Your task to perform on an android device: move a message to another label in the gmail app Image 0: 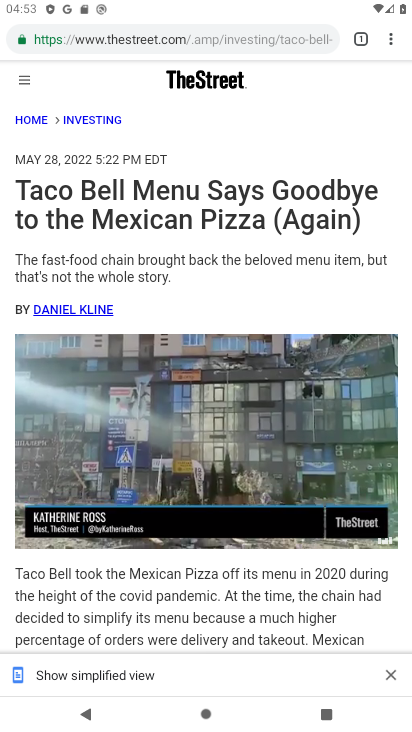
Step 0: press home button
Your task to perform on an android device: move a message to another label in the gmail app Image 1: 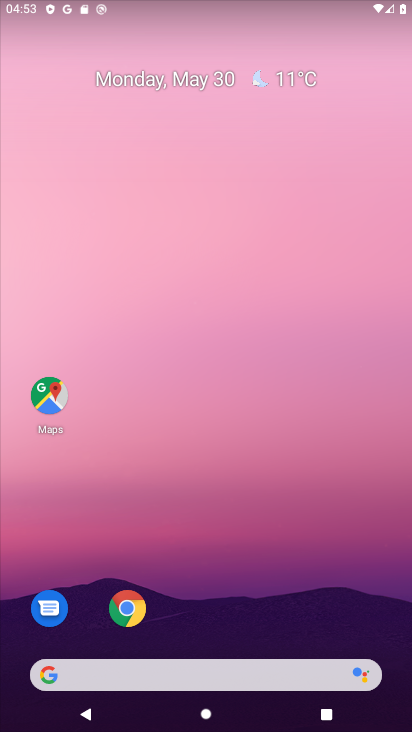
Step 1: press home button
Your task to perform on an android device: move a message to another label in the gmail app Image 2: 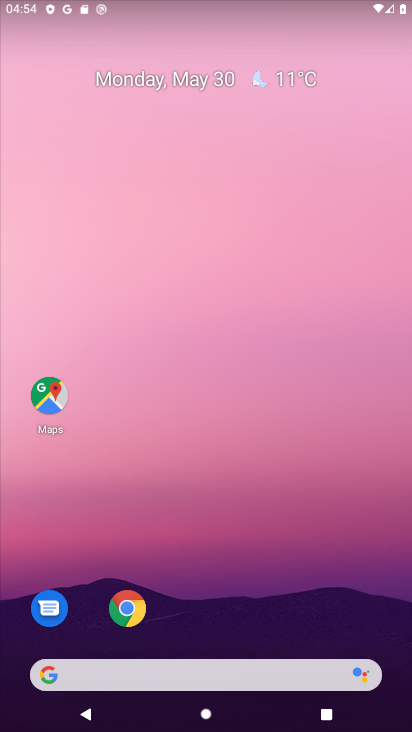
Step 2: drag from (217, 643) to (210, 370)
Your task to perform on an android device: move a message to another label in the gmail app Image 3: 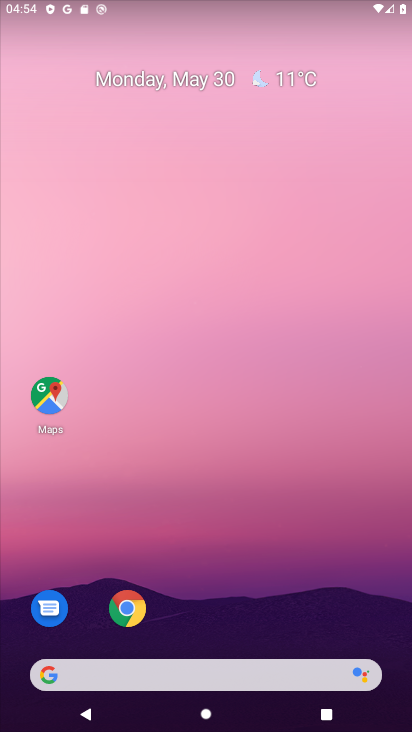
Step 3: drag from (200, 634) to (227, 147)
Your task to perform on an android device: move a message to another label in the gmail app Image 4: 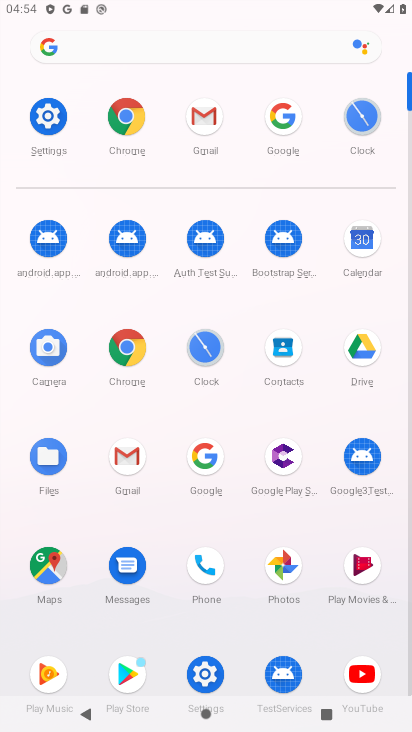
Step 4: click (143, 461)
Your task to perform on an android device: move a message to another label in the gmail app Image 5: 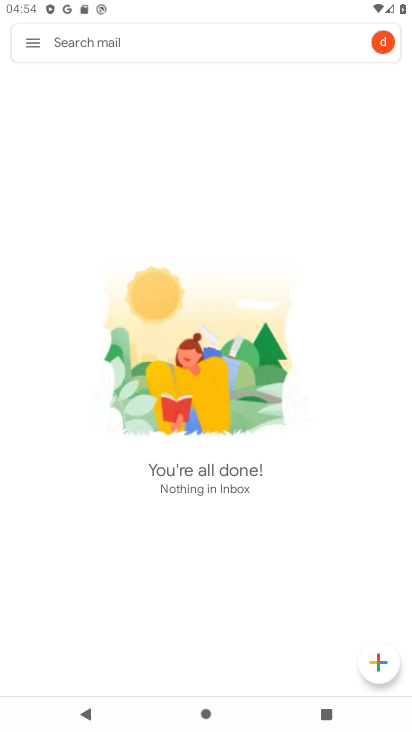
Step 5: task complete